Your task to perform on an android device: Open Youtube and go to the subscriptions tab Image 0: 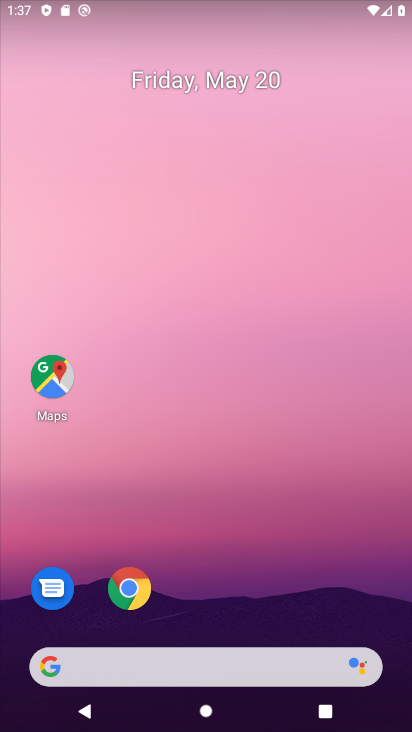
Step 0: drag from (256, 684) to (175, 7)
Your task to perform on an android device: Open Youtube and go to the subscriptions tab Image 1: 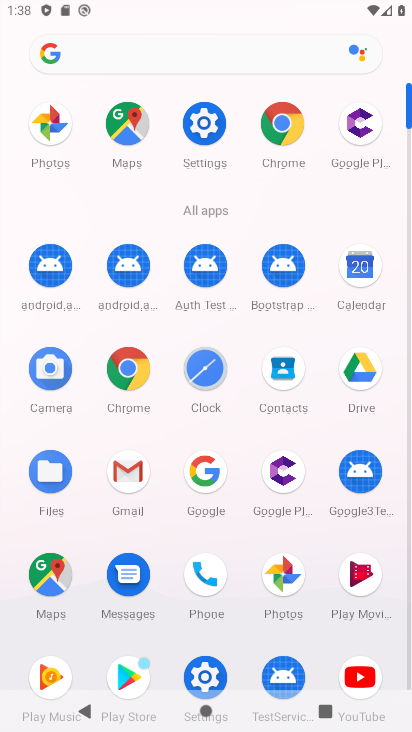
Step 1: click (354, 673)
Your task to perform on an android device: Open Youtube and go to the subscriptions tab Image 2: 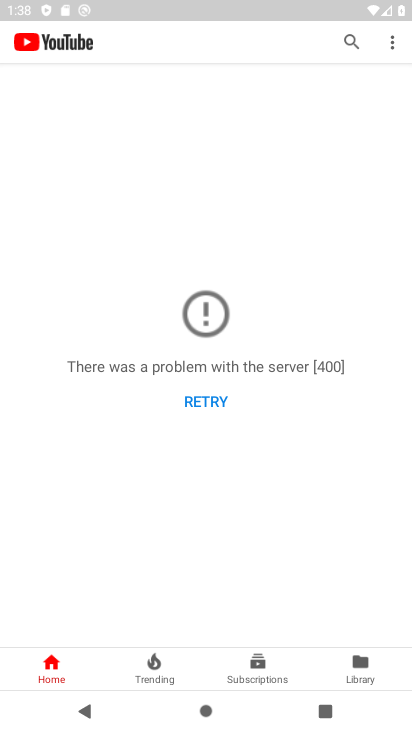
Step 2: task complete